Your task to perform on an android device: delete location history Image 0: 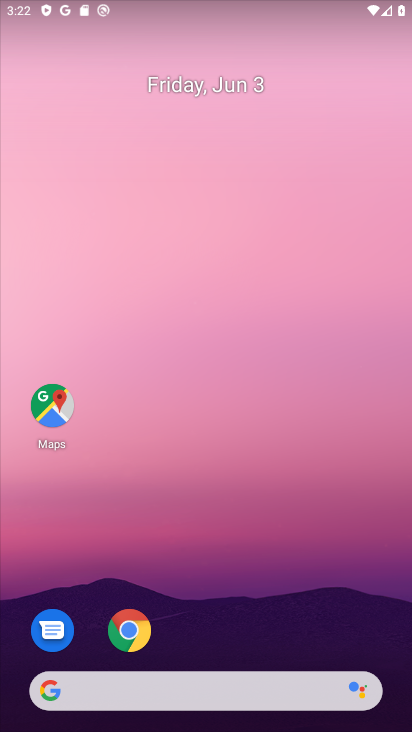
Step 0: drag from (243, 633) to (397, 168)
Your task to perform on an android device: delete location history Image 1: 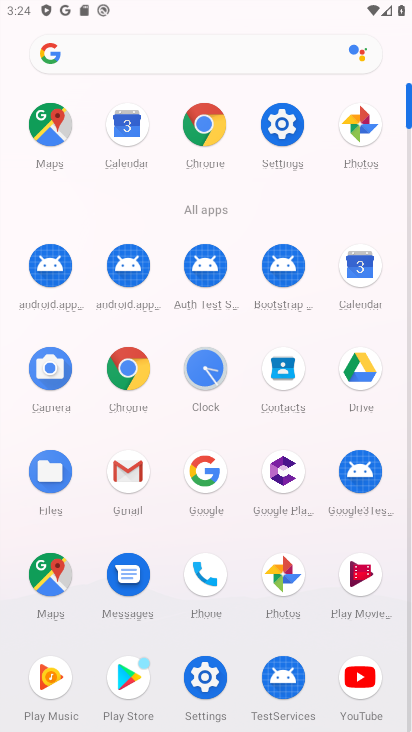
Step 1: click (273, 127)
Your task to perform on an android device: delete location history Image 2: 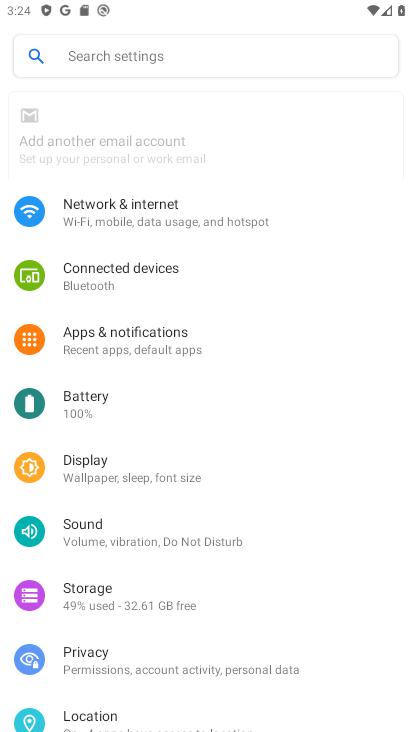
Step 2: click (273, 127)
Your task to perform on an android device: delete location history Image 3: 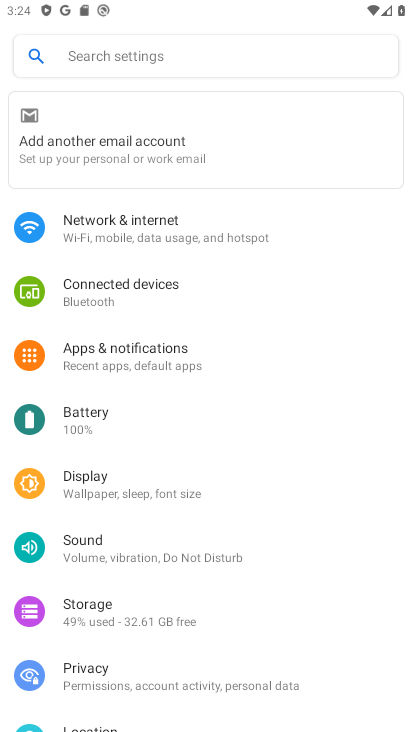
Step 3: click (273, 127)
Your task to perform on an android device: delete location history Image 4: 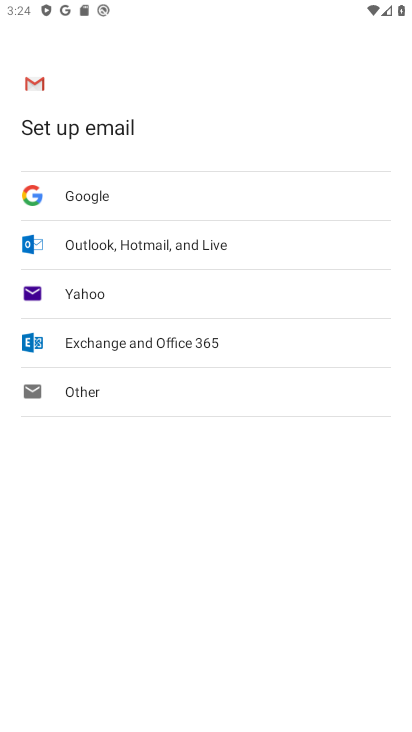
Step 4: press back button
Your task to perform on an android device: delete location history Image 5: 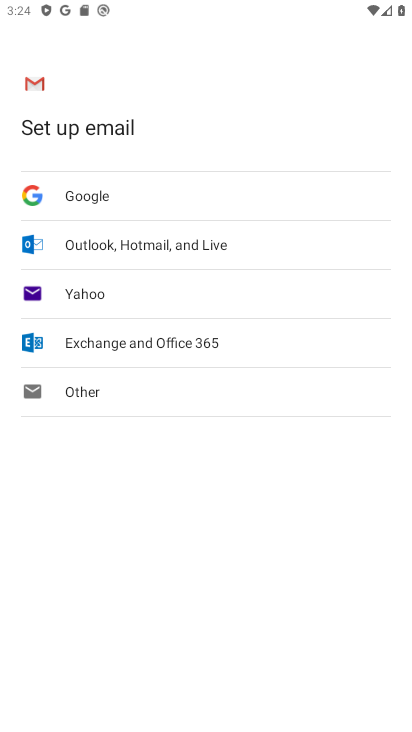
Step 5: press back button
Your task to perform on an android device: delete location history Image 6: 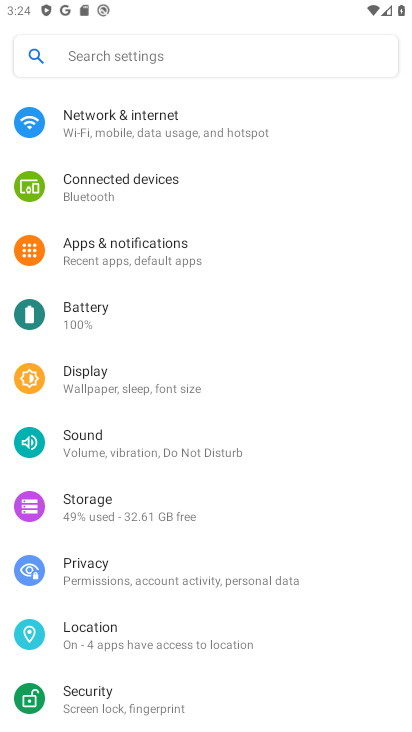
Step 6: press back button
Your task to perform on an android device: delete location history Image 7: 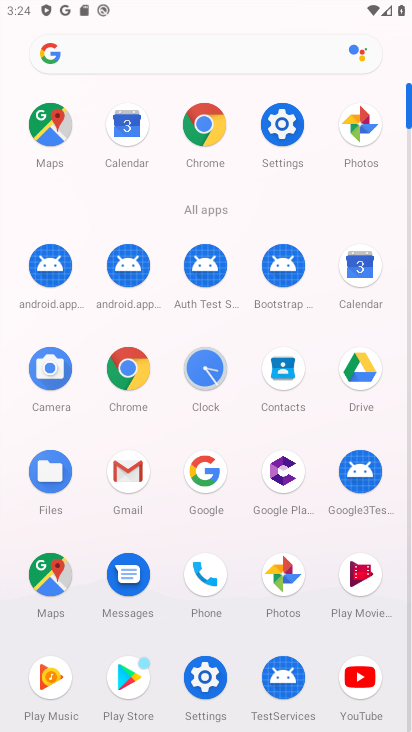
Step 7: click (282, 135)
Your task to perform on an android device: delete location history Image 8: 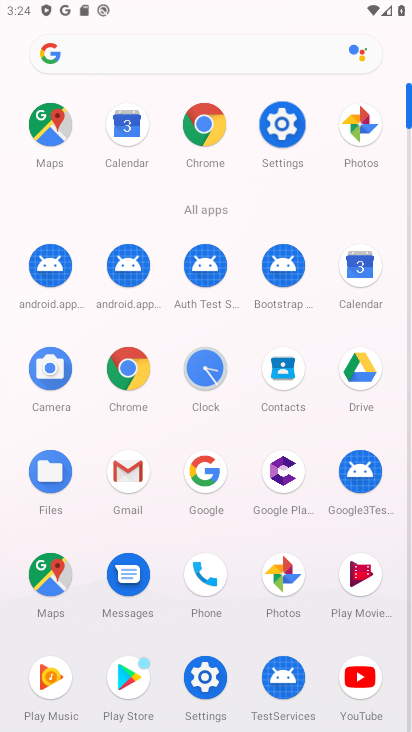
Step 8: click (282, 135)
Your task to perform on an android device: delete location history Image 9: 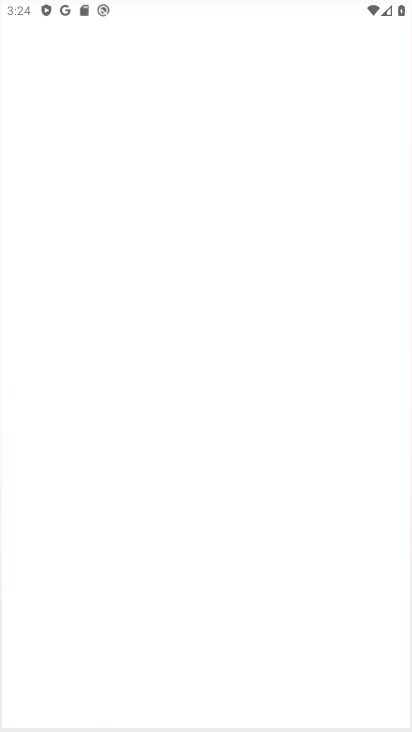
Step 9: click (277, 140)
Your task to perform on an android device: delete location history Image 10: 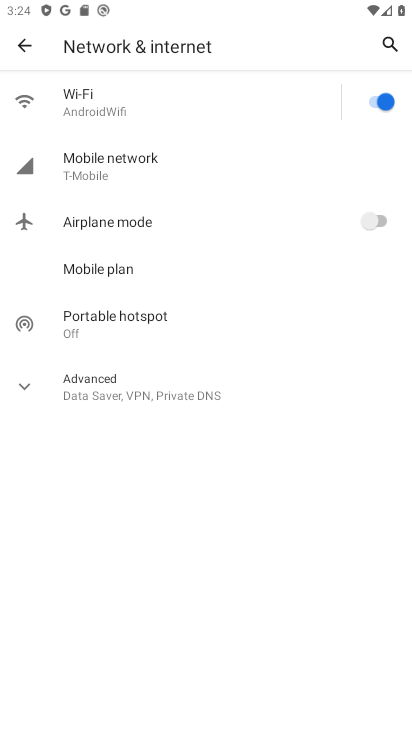
Step 10: click (15, 41)
Your task to perform on an android device: delete location history Image 11: 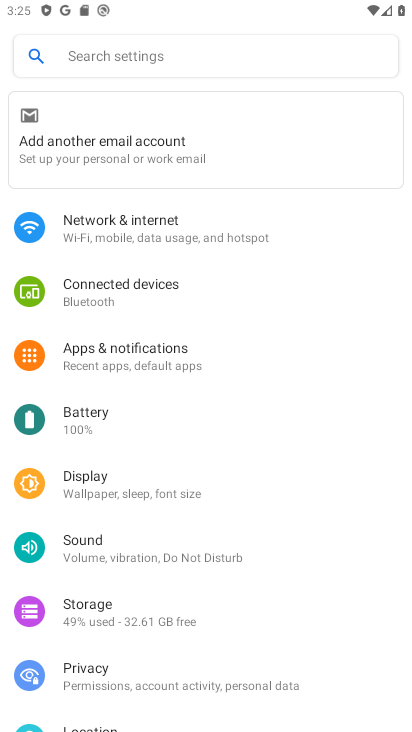
Step 11: drag from (126, 525) to (137, 232)
Your task to perform on an android device: delete location history Image 12: 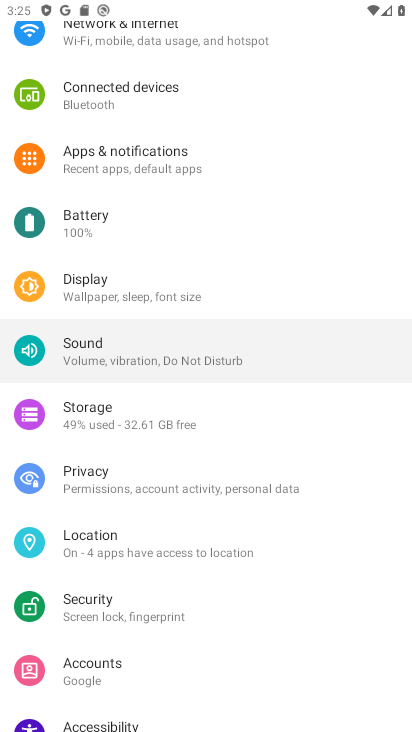
Step 12: drag from (157, 455) to (134, 307)
Your task to perform on an android device: delete location history Image 13: 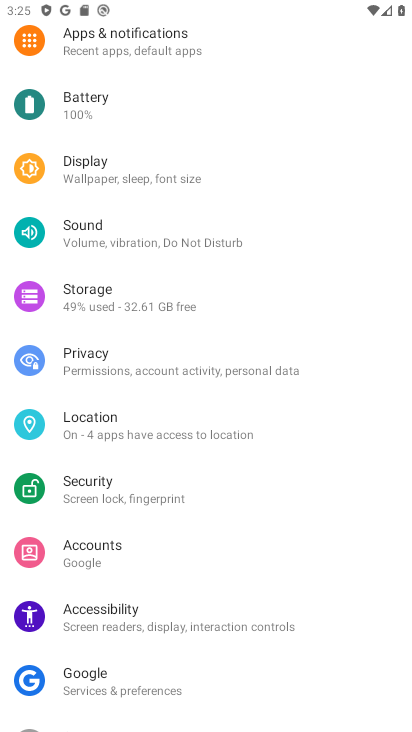
Step 13: click (101, 428)
Your task to perform on an android device: delete location history Image 14: 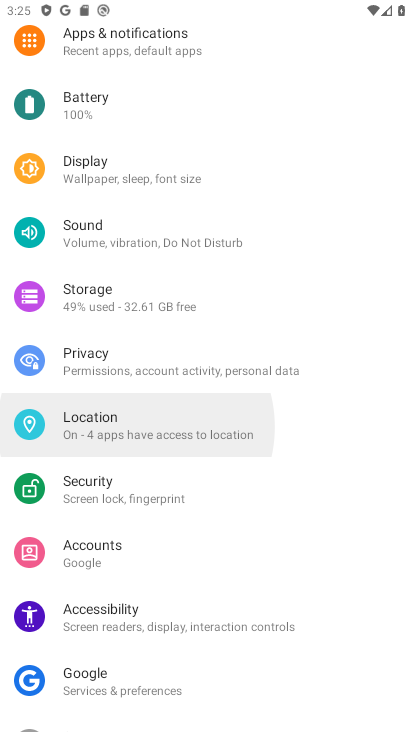
Step 14: click (101, 428)
Your task to perform on an android device: delete location history Image 15: 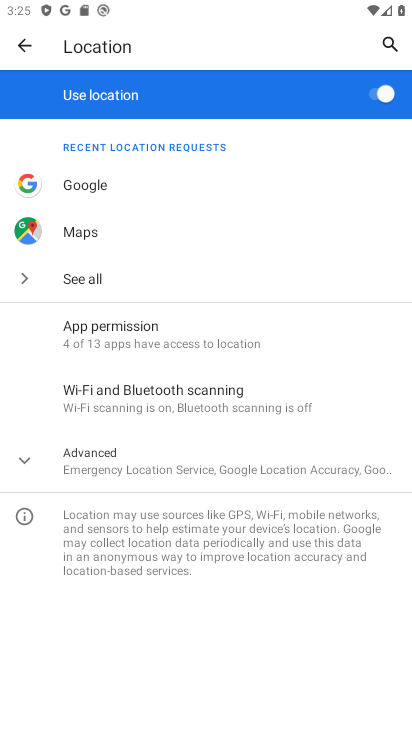
Step 15: click (119, 467)
Your task to perform on an android device: delete location history Image 16: 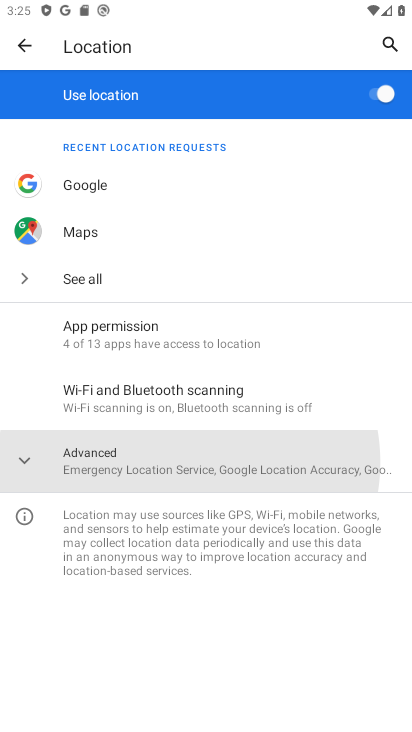
Step 16: click (119, 464)
Your task to perform on an android device: delete location history Image 17: 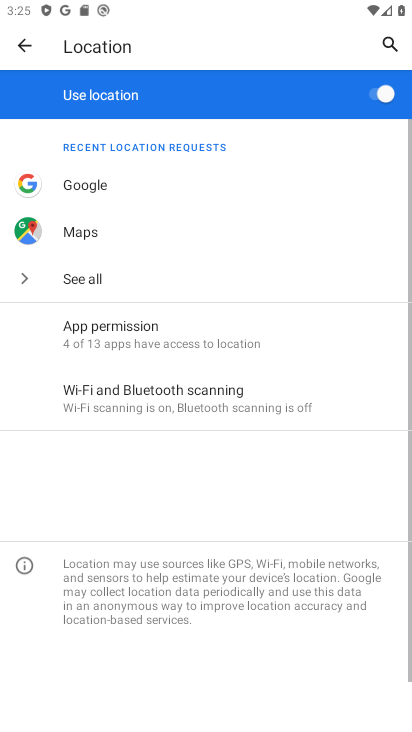
Step 17: click (121, 466)
Your task to perform on an android device: delete location history Image 18: 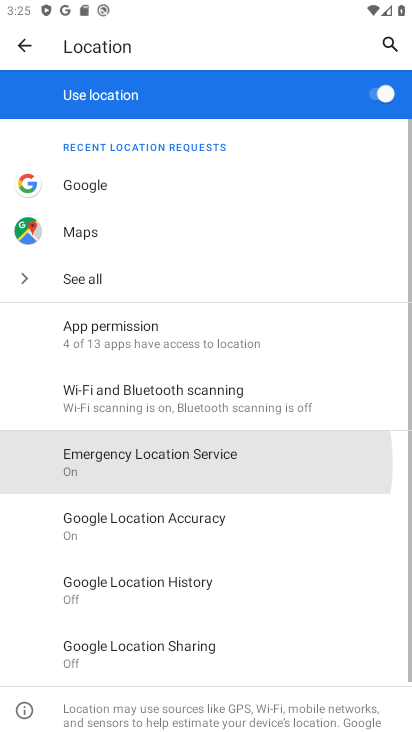
Step 18: click (119, 468)
Your task to perform on an android device: delete location history Image 19: 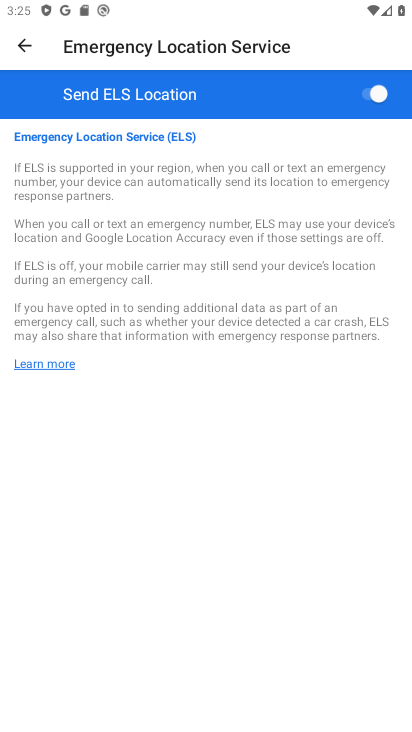
Step 19: click (16, 43)
Your task to perform on an android device: delete location history Image 20: 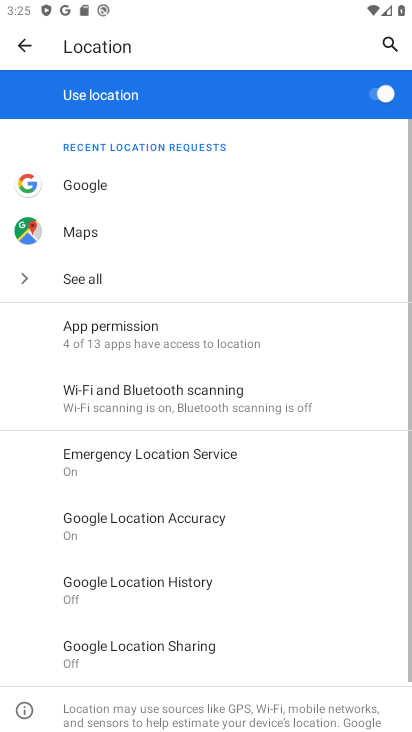
Step 20: click (156, 582)
Your task to perform on an android device: delete location history Image 21: 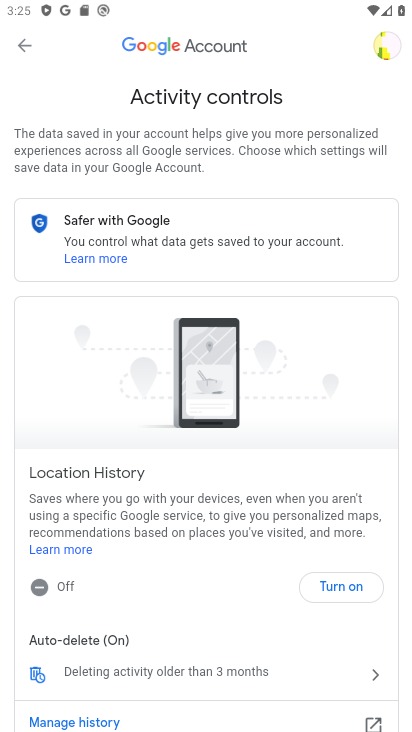
Step 21: click (31, 672)
Your task to perform on an android device: delete location history Image 22: 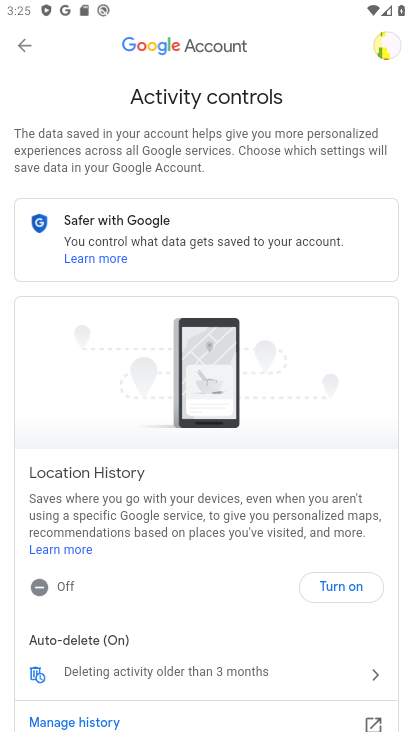
Step 22: click (31, 672)
Your task to perform on an android device: delete location history Image 23: 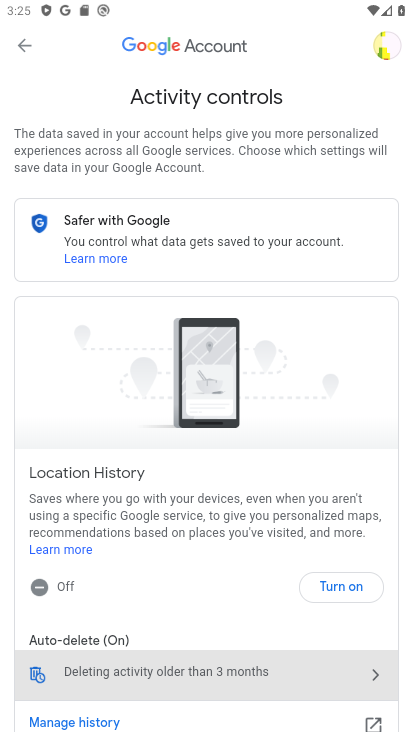
Step 23: click (40, 667)
Your task to perform on an android device: delete location history Image 24: 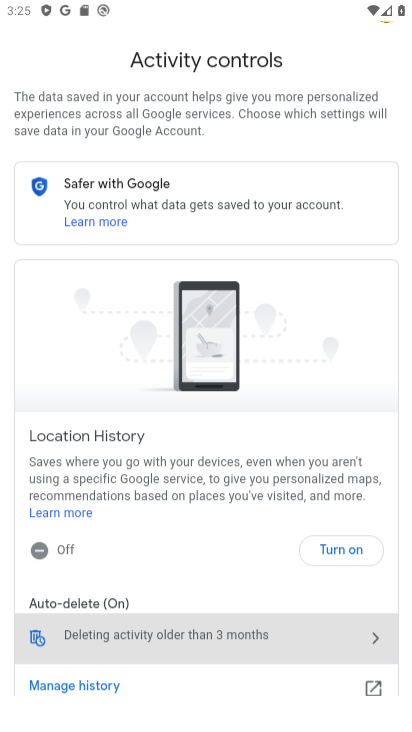
Step 24: click (34, 675)
Your task to perform on an android device: delete location history Image 25: 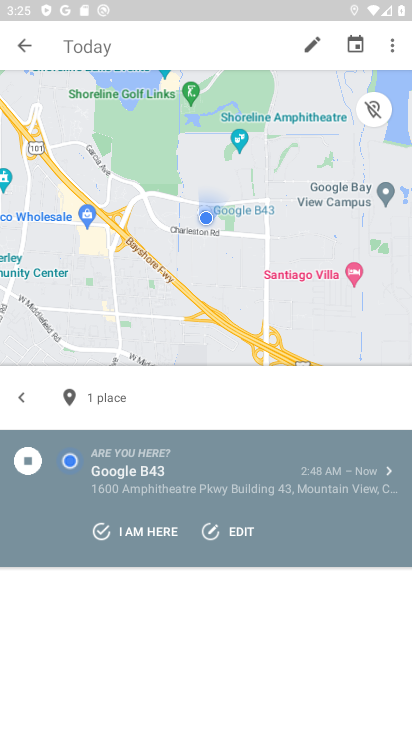
Step 25: task complete